Your task to perform on an android device: turn notification dots off Image 0: 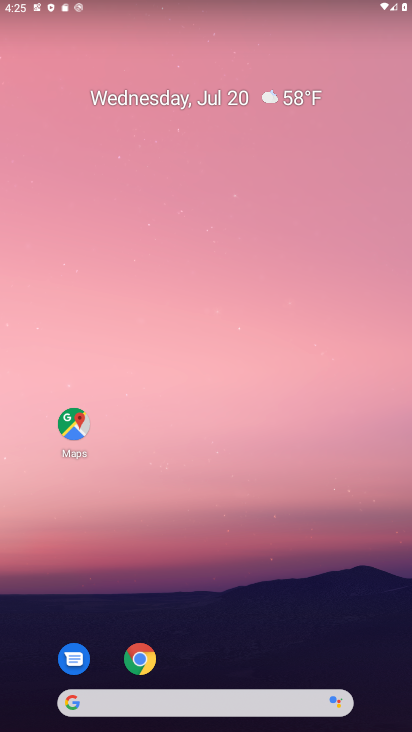
Step 0: drag from (213, 263) to (204, 131)
Your task to perform on an android device: turn notification dots off Image 1: 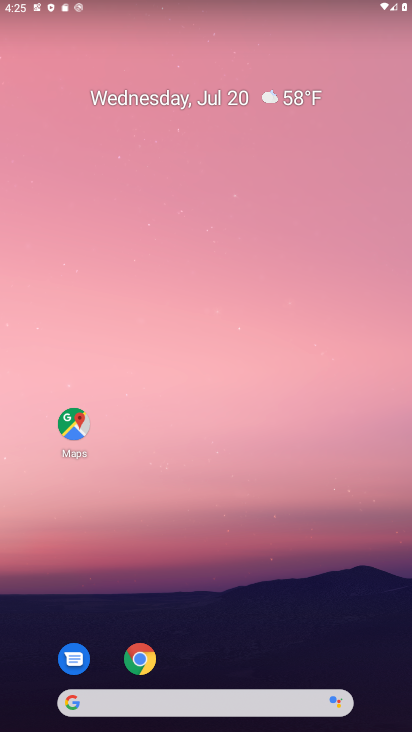
Step 1: click (115, 175)
Your task to perform on an android device: turn notification dots off Image 2: 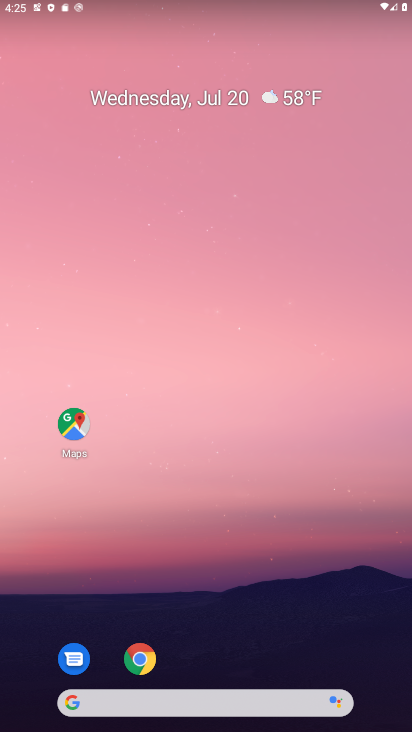
Step 2: drag from (204, 526) to (262, 119)
Your task to perform on an android device: turn notification dots off Image 3: 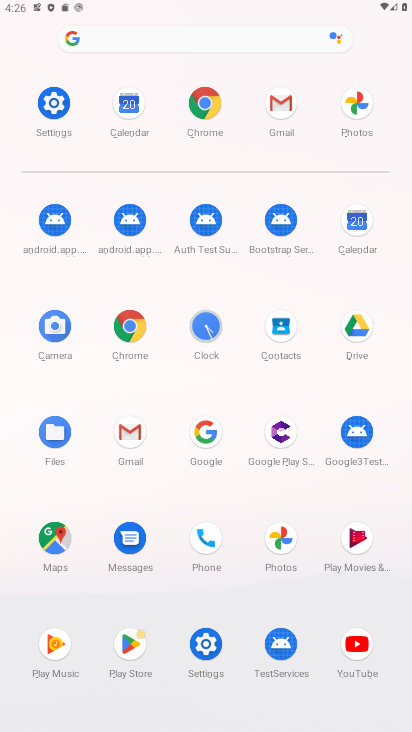
Step 3: click (57, 106)
Your task to perform on an android device: turn notification dots off Image 4: 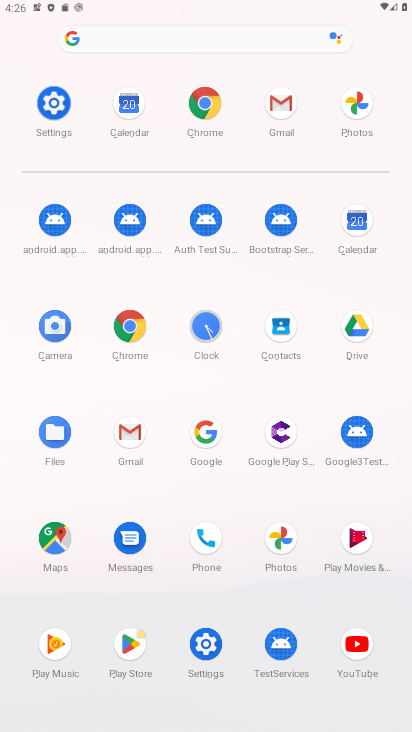
Step 4: click (57, 105)
Your task to perform on an android device: turn notification dots off Image 5: 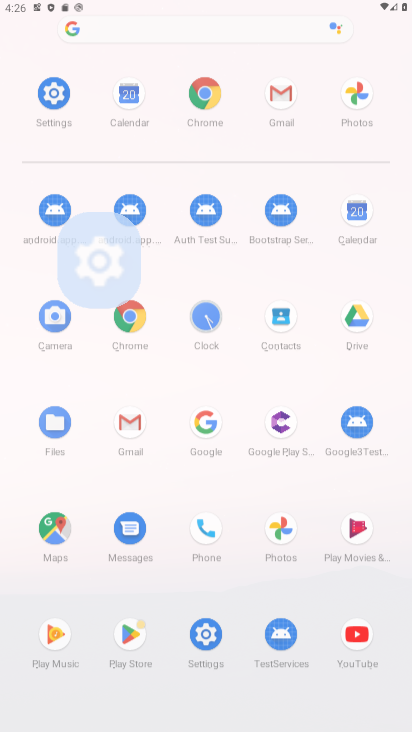
Step 5: click (57, 105)
Your task to perform on an android device: turn notification dots off Image 6: 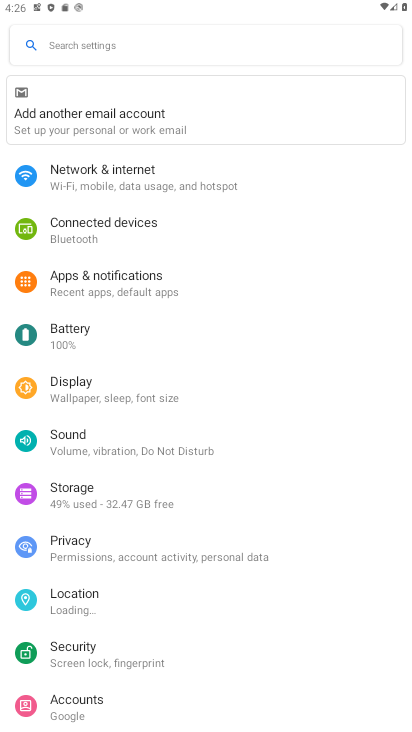
Step 6: click (108, 278)
Your task to perform on an android device: turn notification dots off Image 7: 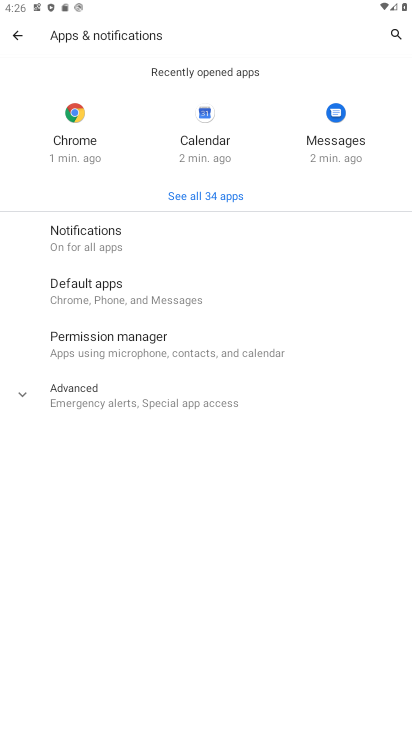
Step 7: click (81, 233)
Your task to perform on an android device: turn notification dots off Image 8: 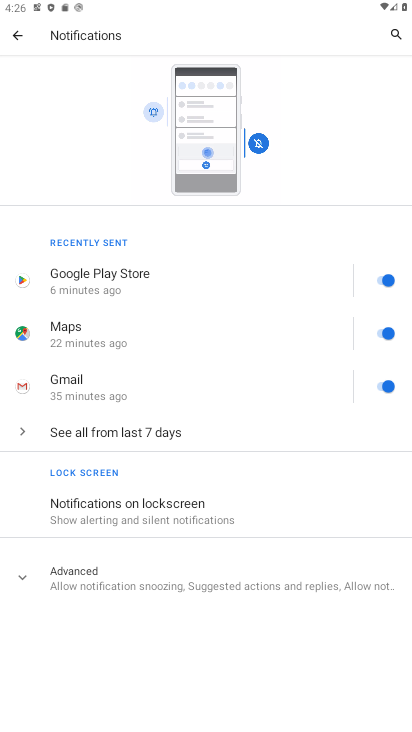
Step 8: click (94, 573)
Your task to perform on an android device: turn notification dots off Image 9: 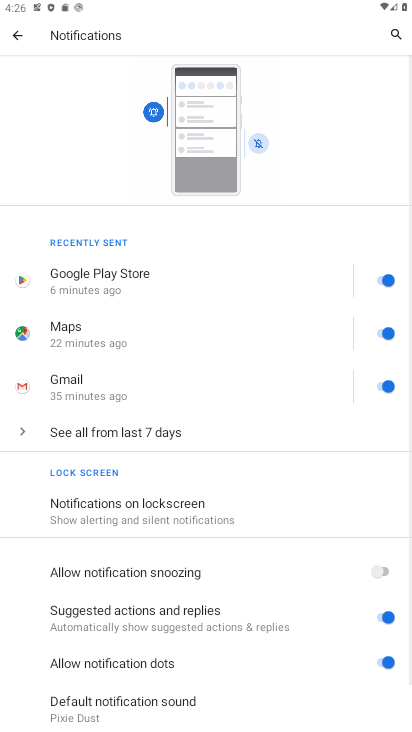
Step 9: drag from (244, 580) to (272, 363)
Your task to perform on an android device: turn notification dots off Image 10: 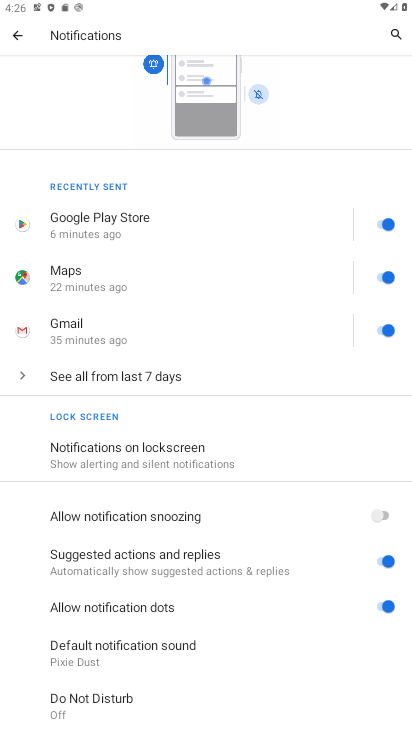
Step 10: click (388, 601)
Your task to perform on an android device: turn notification dots off Image 11: 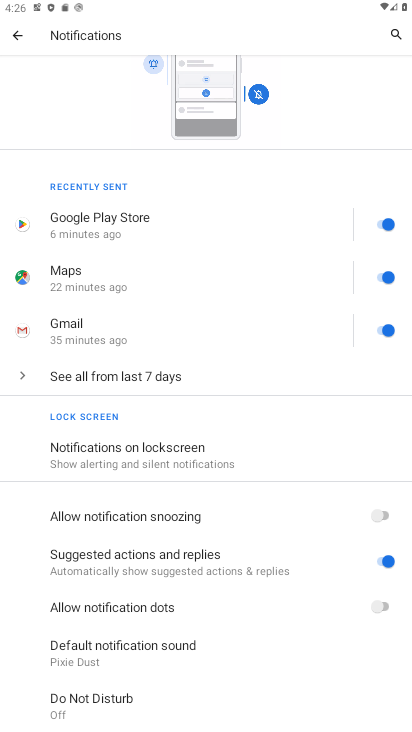
Step 11: task complete